Your task to perform on an android device: Go to CNN.com Image 0: 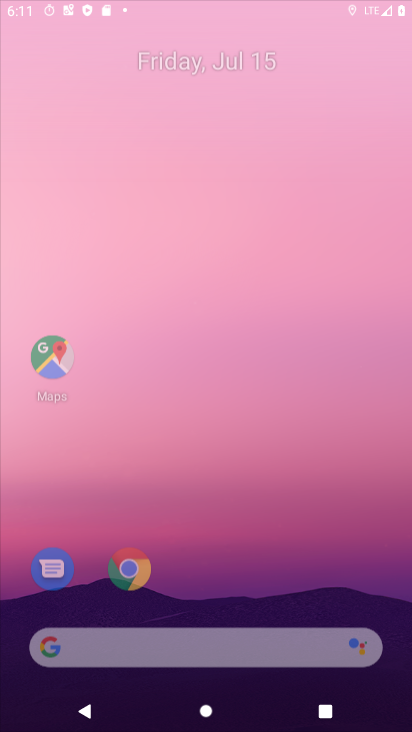
Step 0: drag from (349, 613) to (315, 25)
Your task to perform on an android device: Go to CNN.com Image 1: 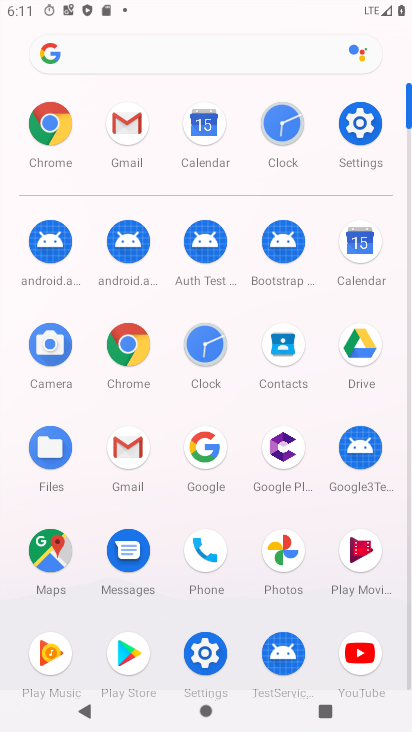
Step 1: click (141, 347)
Your task to perform on an android device: Go to CNN.com Image 2: 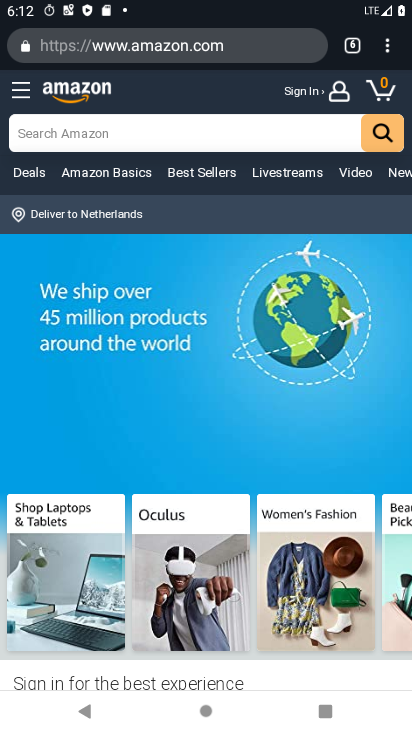
Step 2: click (186, 34)
Your task to perform on an android device: Go to CNN.com Image 3: 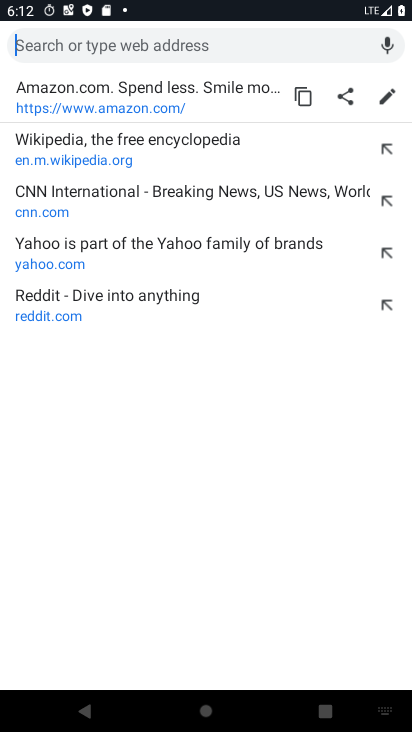
Step 3: type "cnn.com"
Your task to perform on an android device: Go to CNN.com Image 4: 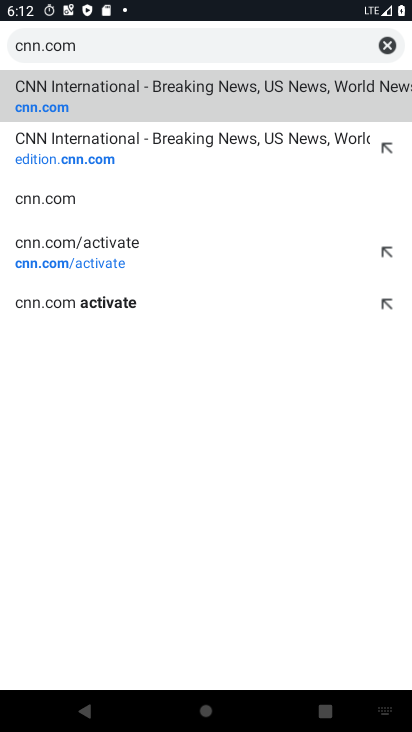
Step 4: click (144, 106)
Your task to perform on an android device: Go to CNN.com Image 5: 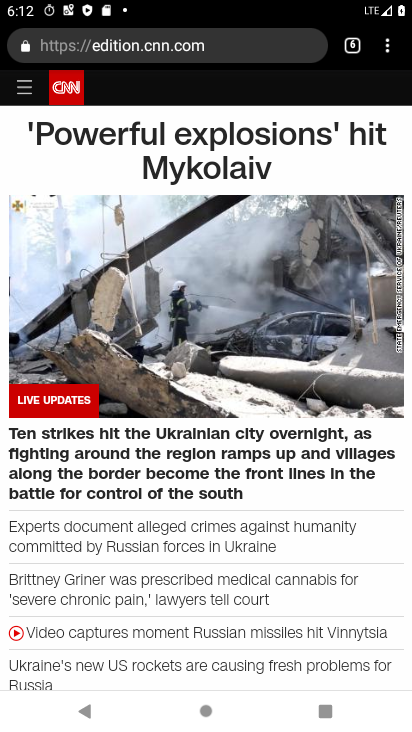
Step 5: task complete